Your task to perform on an android device: change the clock display to digital Image 0: 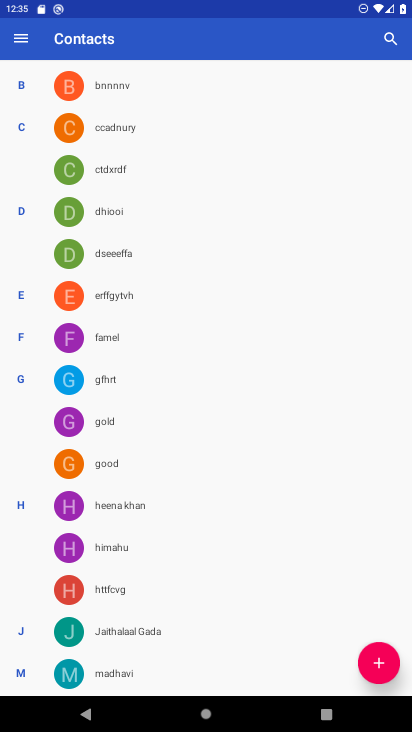
Step 0: press home button
Your task to perform on an android device: change the clock display to digital Image 1: 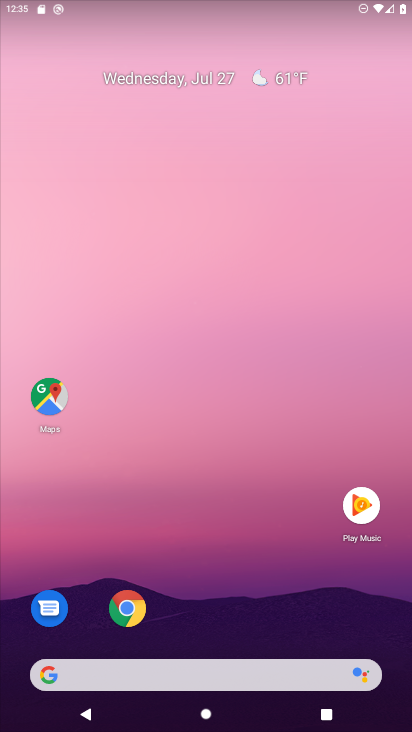
Step 1: drag from (290, 617) to (326, 157)
Your task to perform on an android device: change the clock display to digital Image 2: 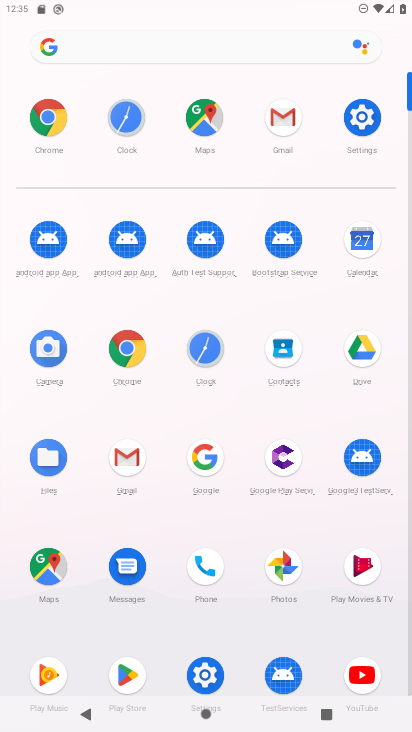
Step 2: click (207, 344)
Your task to perform on an android device: change the clock display to digital Image 3: 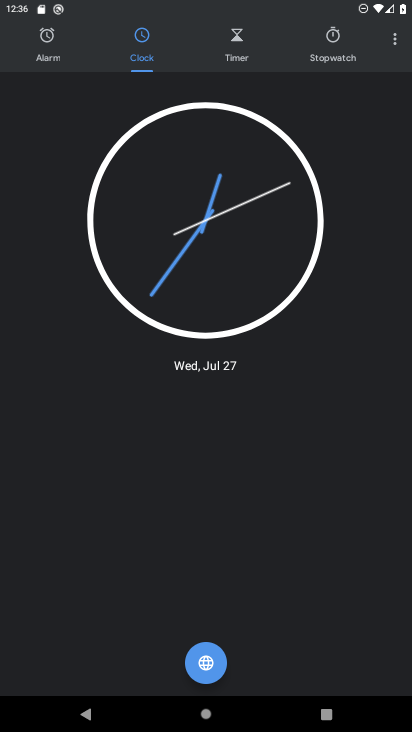
Step 3: click (393, 42)
Your task to perform on an android device: change the clock display to digital Image 4: 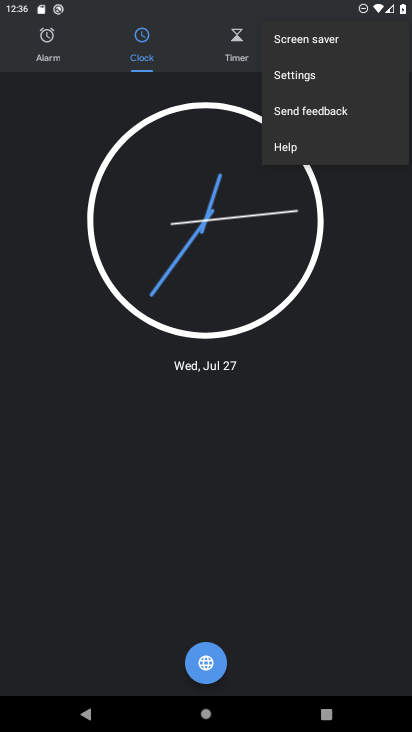
Step 4: click (315, 80)
Your task to perform on an android device: change the clock display to digital Image 5: 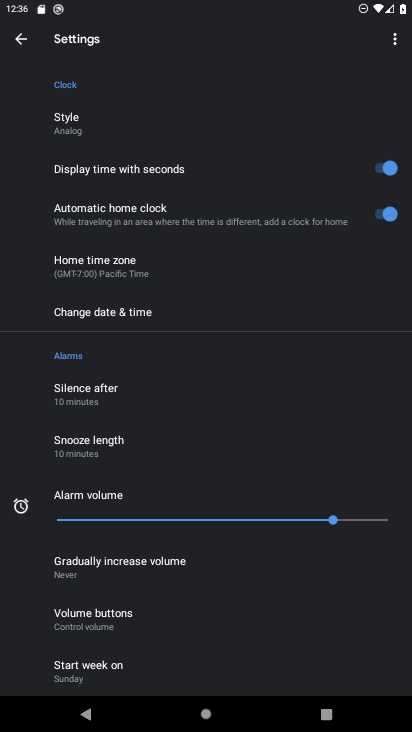
Step 5: drag from (349, 562) to (350, 497)
Your task to perform on an android device: change the clock display to digital Image 6: 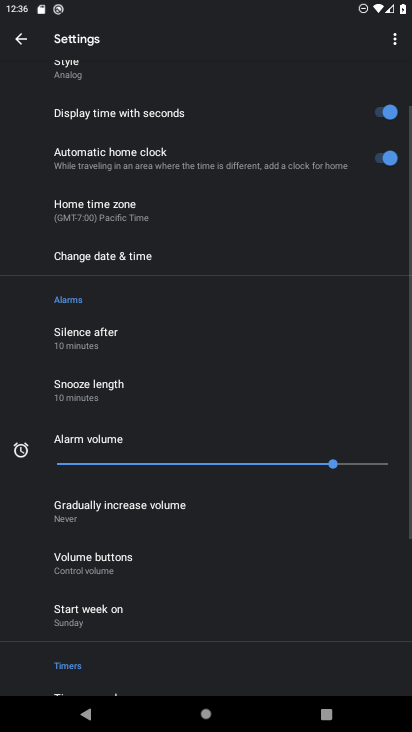
Step 6: drag from (341, 539) to (345, 472)
Your task to perform on an android device: change the clock display to digital Image 7: 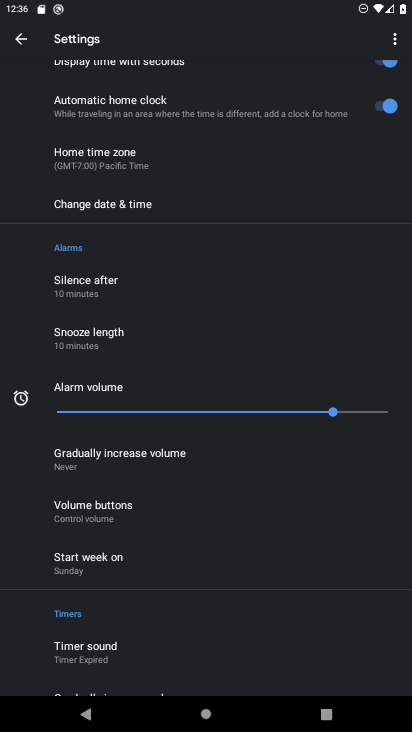
Step 7: drag from (326, 536) to (332, 465)
Your task to perform on an android device: change the clock display to digital Image 8: 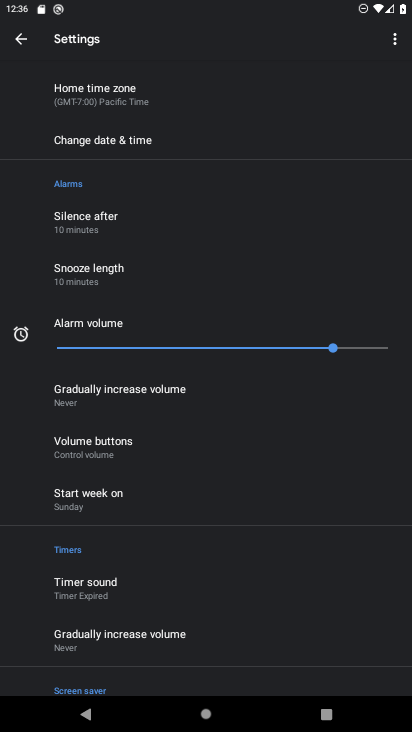
Step 8: drag from (314, 541) to (315, 473)
Your task to perform on an android device: change the clock display to digital Image 9: 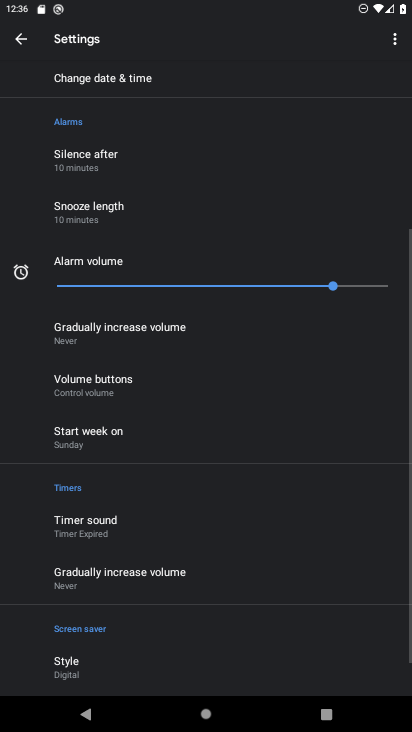
Step 9: drag from (305, 544) to (307, 453)
Your task to perform on an android device: change the clock display to digital Image 10: 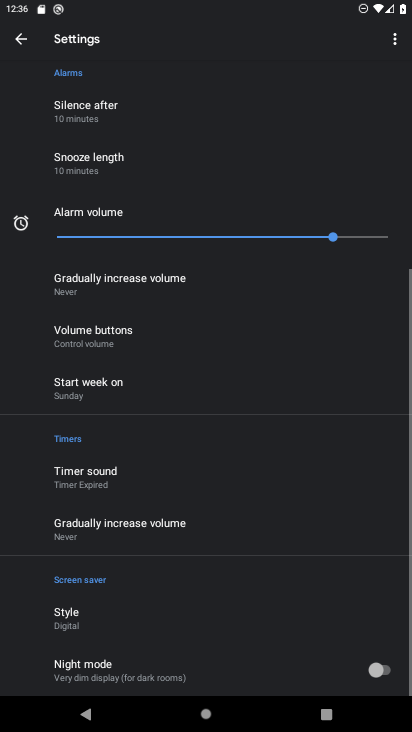
Step 10: drag from (310, 347) to (305, 387)
Your task to perform on an android device: change the clock display to digital Image 11: 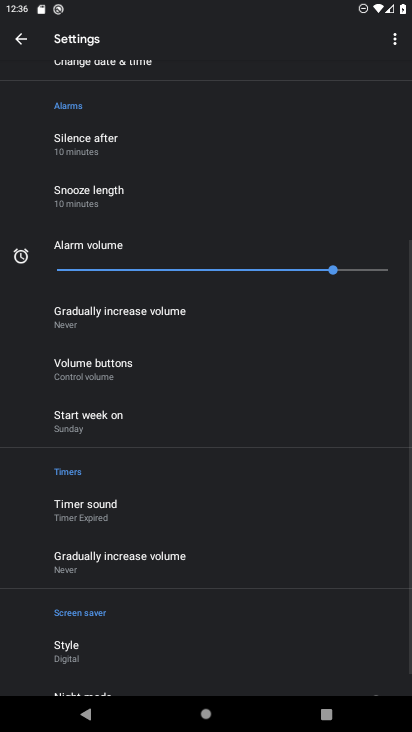
Step 11: drag from (305, 325) to (298, 375)
Your task to perform on an android device: change the clock display to digital Image 12: 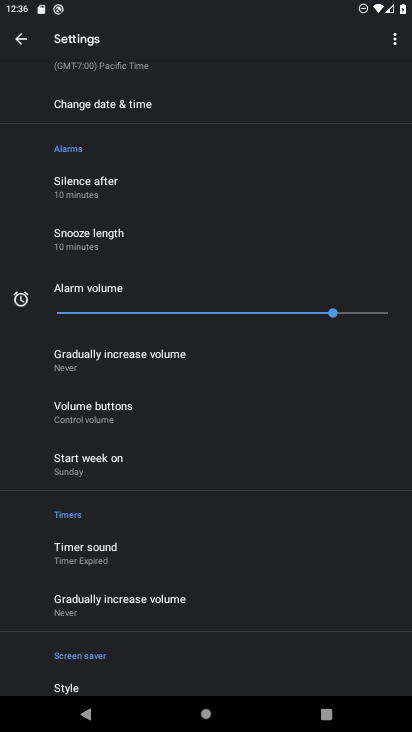
Step 12: drag from (289, 244) to (273, 369)
Your task to perform on an android device: change the clock display to digital Image 13: 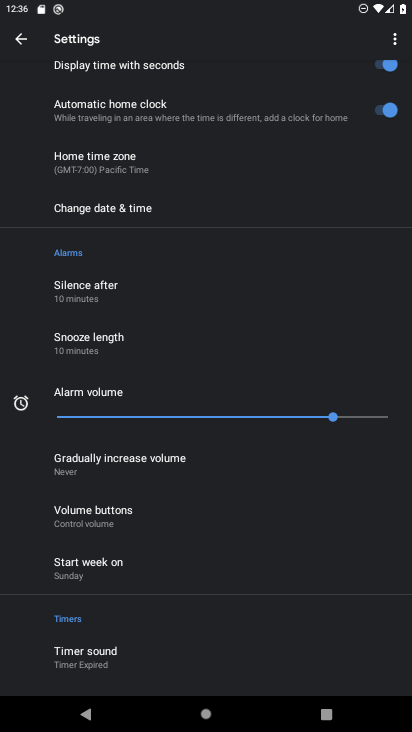
Step 13: drag from (270, 236) to (269, 326)
Your task to perform on an android device: change the clock display to digital Image 14: 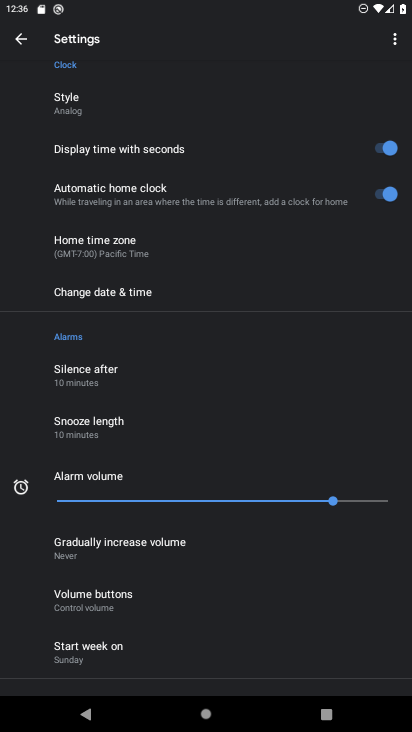
Step 14: drag from (265, 213) to (263, 332)
Your task to perform on an android device: change the clock display to digital Image 15: 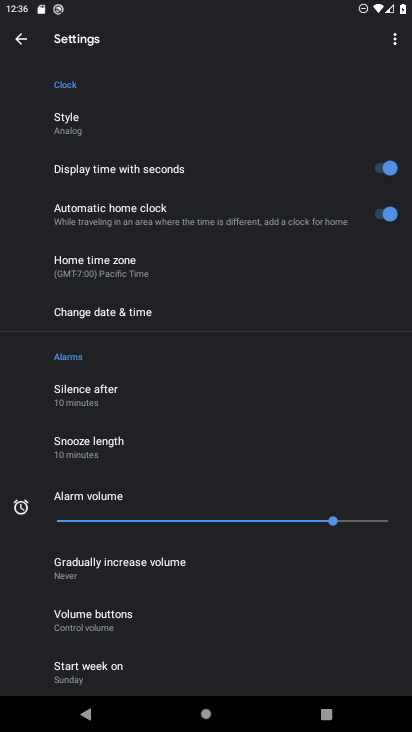
Step 15: click (74, 136)
Your task to perform on an android device: change the clock display to digital Image 16: 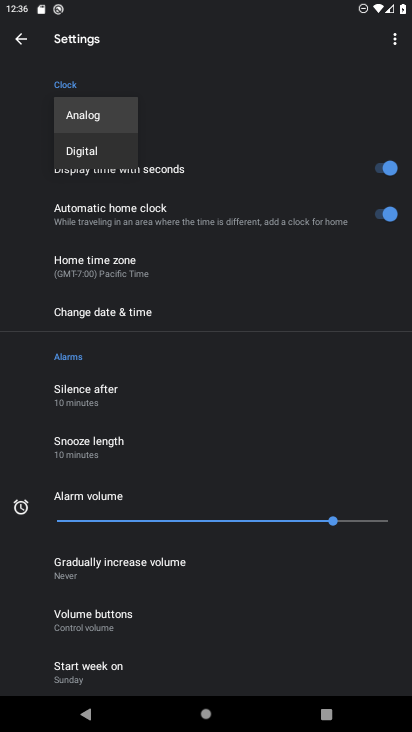
Step 16: click (82, 146)
Your task to perform on an android device: change the clock display to digital Image 17: 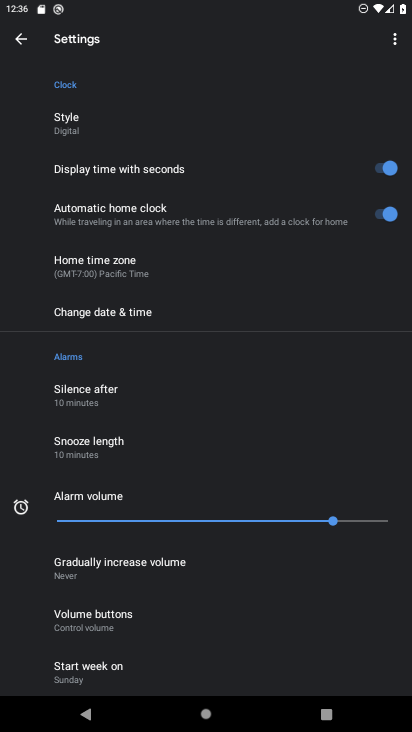
Step 17: task complete